Your task to perform on an android device: toggle improve location accuracy Image 0: 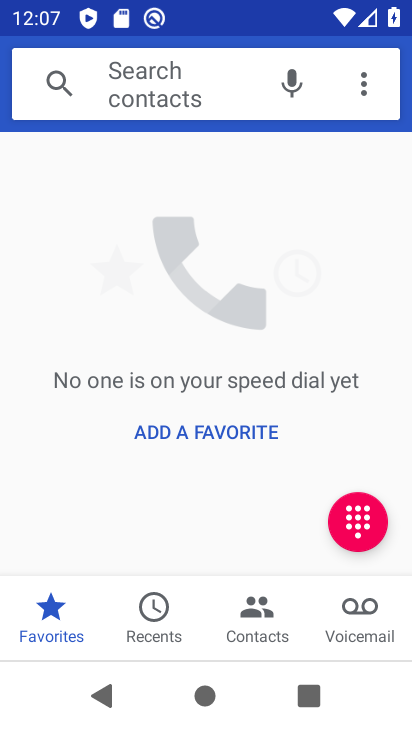
Step 0: press home button
Your task to perform on an android device: toggle improve location accuracy Image 1: 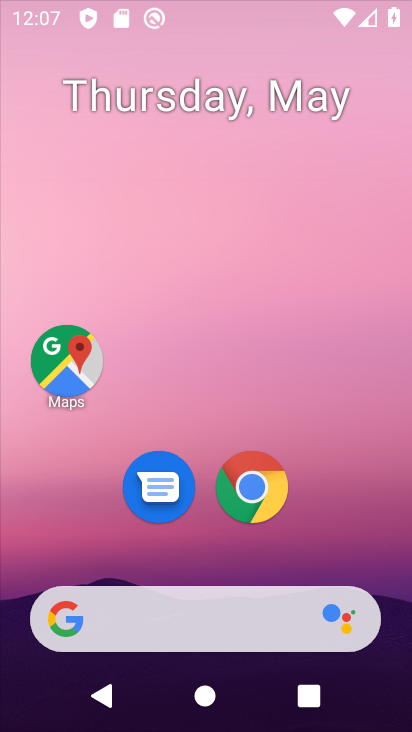
Step 1: drag from (280, 346) to (303, 52)
Your task to perform on an android device: toggle improve location accuracy Image 2: 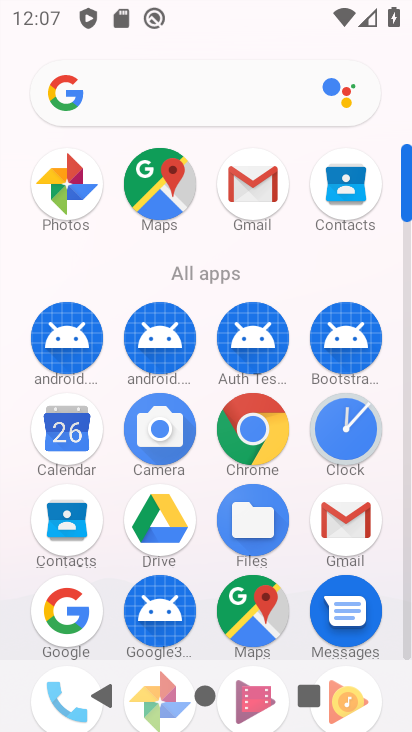
Step 2: drag from (258, 527) to (264, 53)
Your task to perform on an android device: toggle improve location accuracy Image 3: 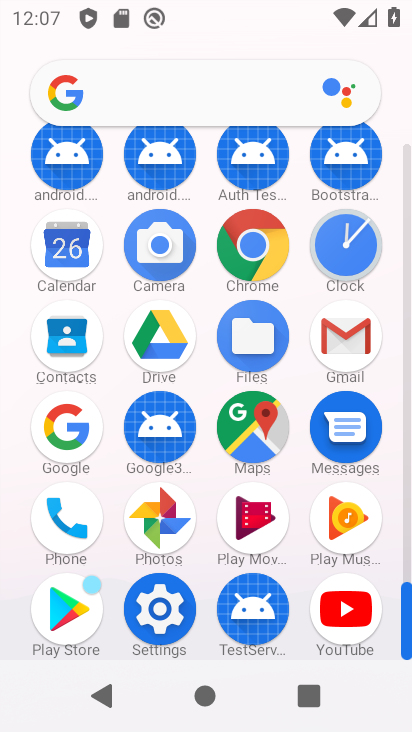
Step 3: click (151, 594)
Your task to perform on an android device: toggle improve location accuracy Image 4: 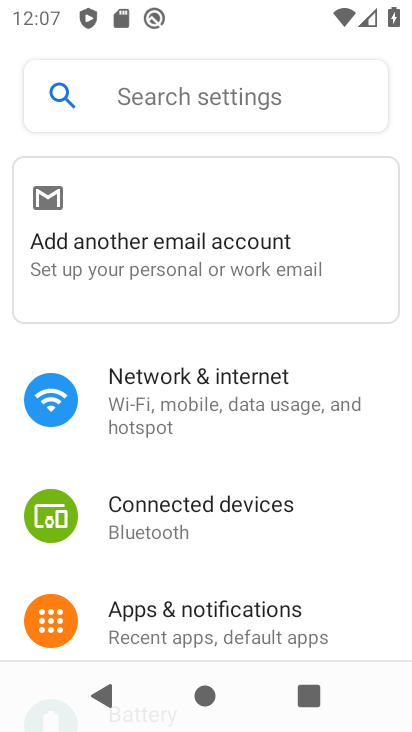
Step 4: drag from (183, 452) to (233, 16)
Your task to perform on an android device: toggle improve location accuracy Image 5: 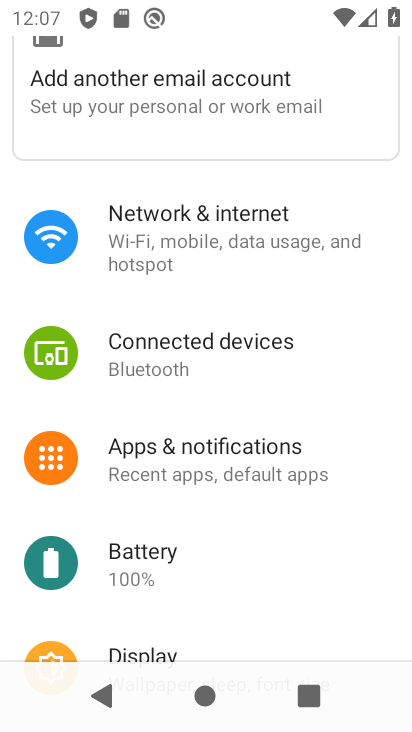
Step 5: drag from (172, 566) to (260, 0)
Your task to perform on an android device: toggle improve location accuracy Image 6: 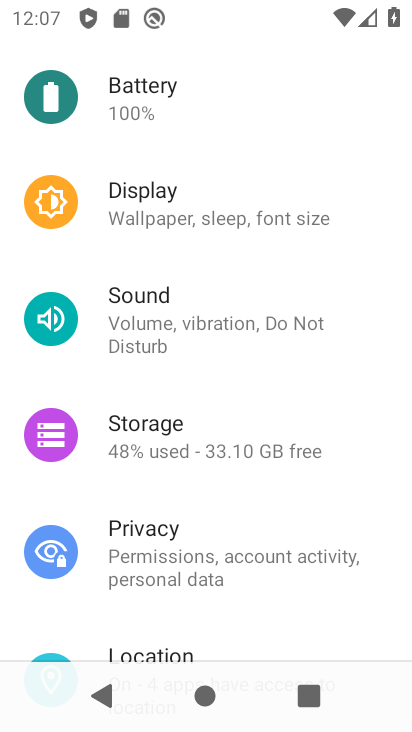
Step 6: click (137, 640)
Your task to perform on an android device: toggle improve location accuracy Image 7: 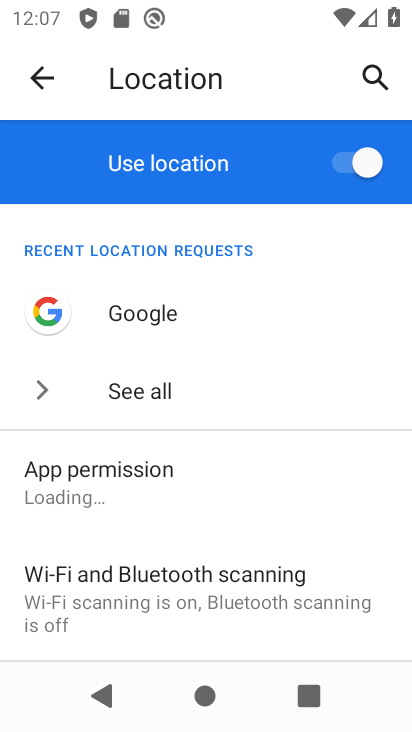
Step 7: drag from (145, 626) to (191, 158)
Your task to perform on an android device: toggle improve location accuracy Image 8: 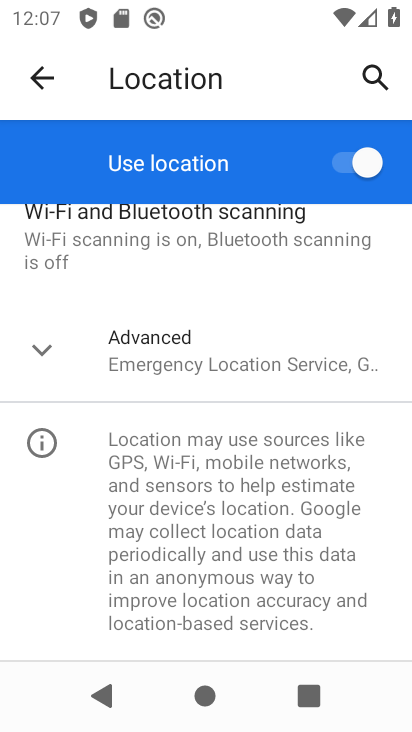
Step 8: click (182, 350)
Your task to perform on an android device: toggle improve location accuracy Image 9: 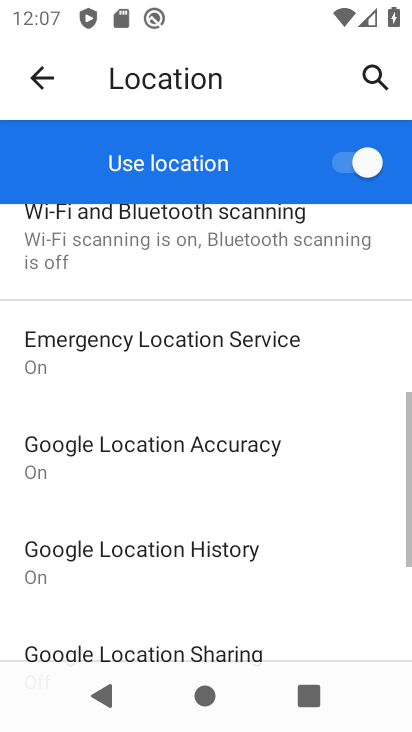
Step 9: click (144, 449)
Your task to perform on an android device: toggle improve location accuracy Image 10: 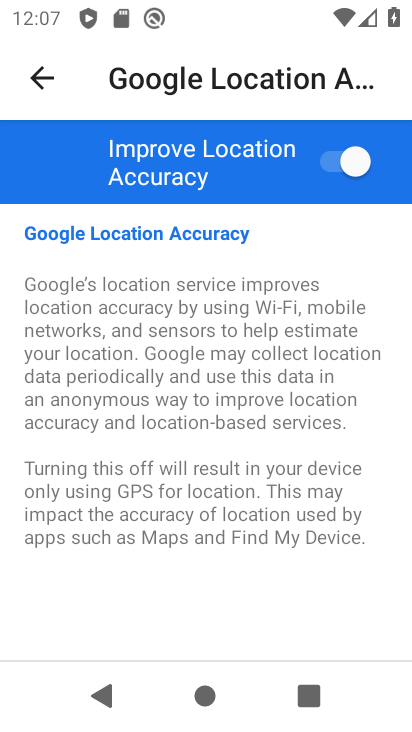
Step 10: click (341, 155)
Your task to perform on an android device: toggle improve location accuracy Image 11: 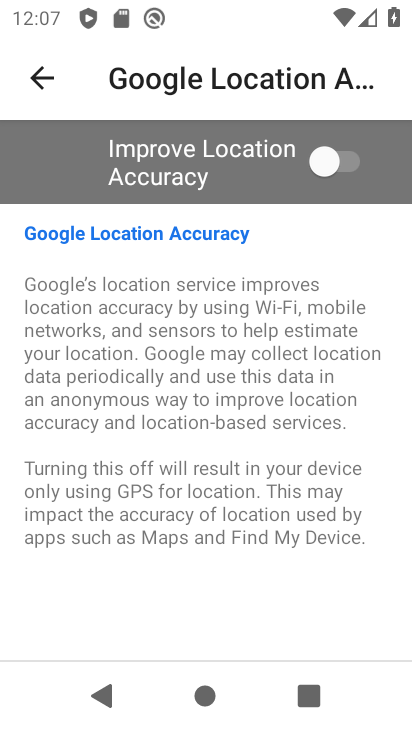
Step 11: task complete